Your task to perform on an android device: install app "Google Maps" Image 0: 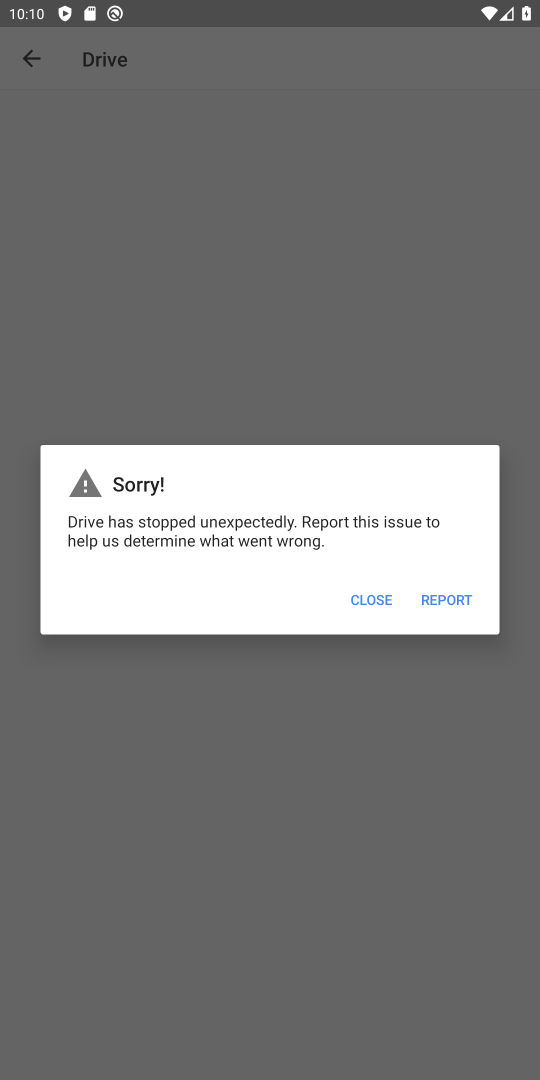
Step 0: click (367, 596)
Your task to perform on an android device: install app "Google Maps" Image 1: 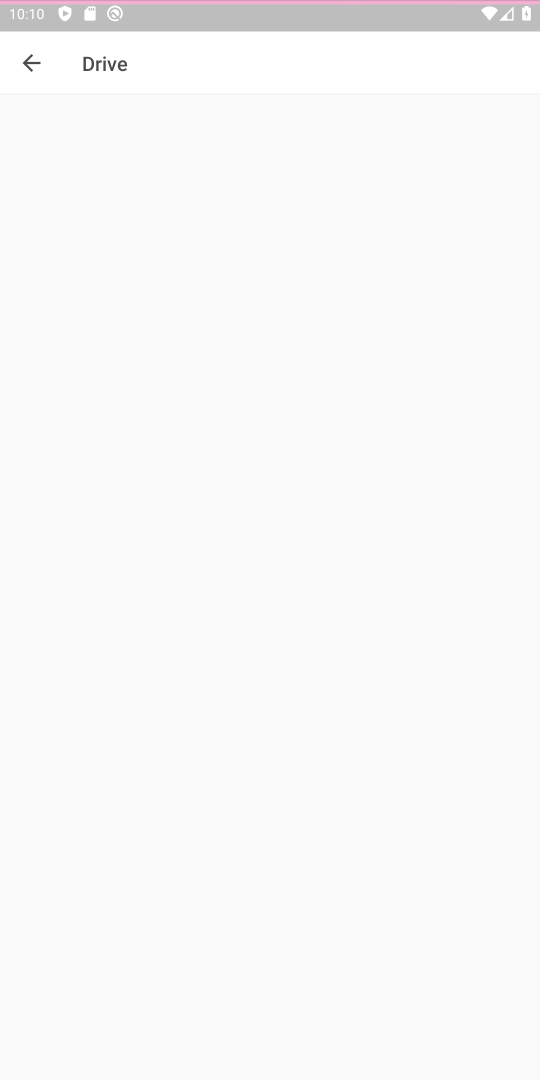
Step 1: press home button
Your task to perform on an android device: install app "Google Maps" Image 2: 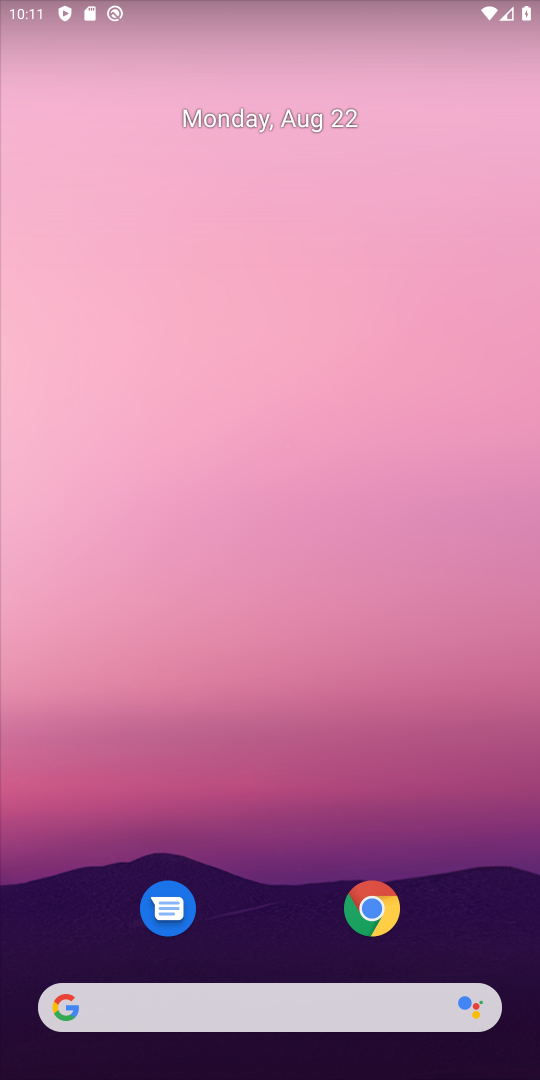
Step 2: drag from (250, 928) to (254, 313)
Your task to perform on an android device: install app "Google Maps" Image 3: 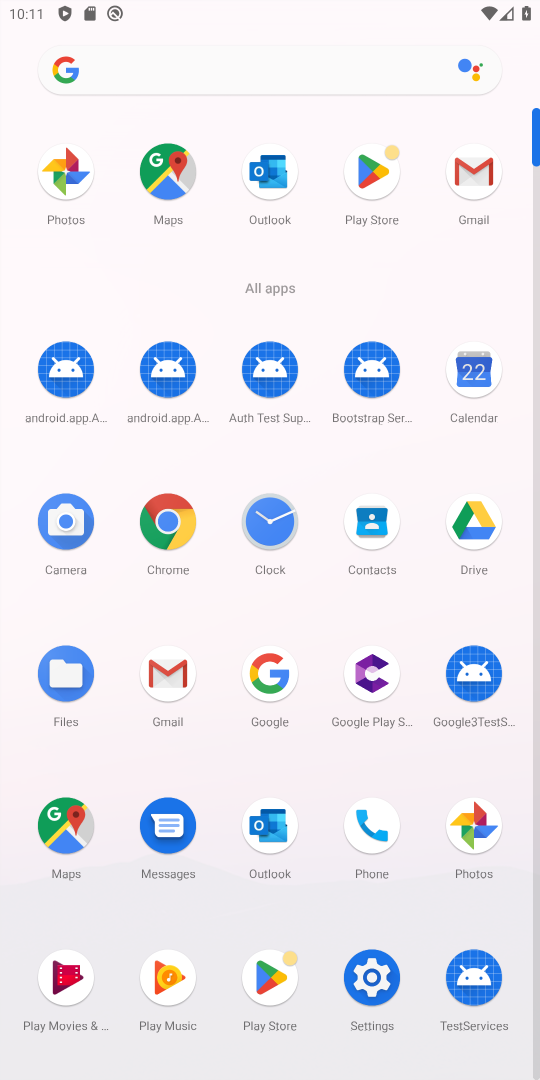
Step 3: click (38, 876)
Your task to perform on an android device: install app "Google Maps" Image 4: 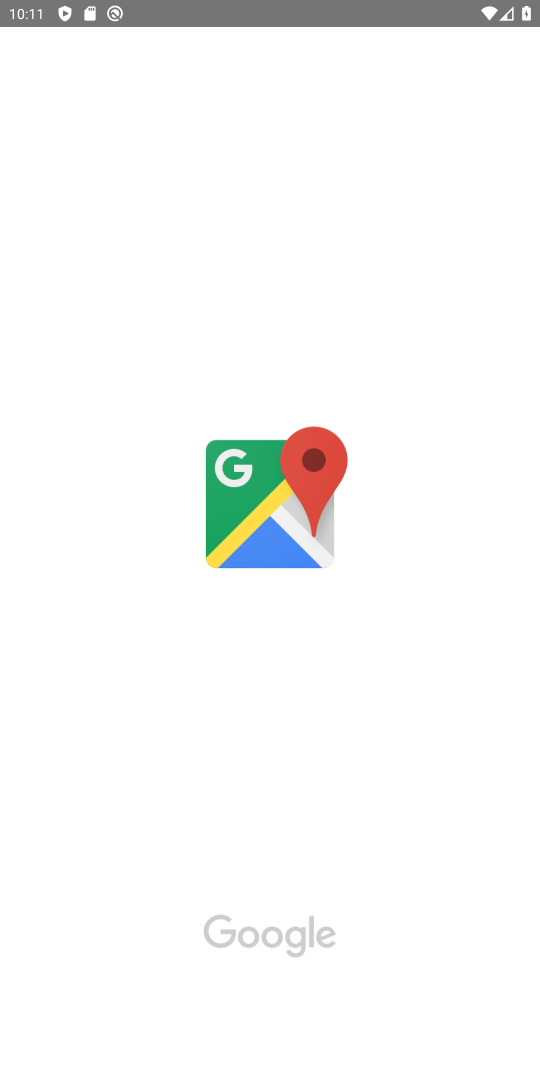
Step 4: task complete